Your task to perform on an android device: turn off priority inbox in the gmail app Image 0: 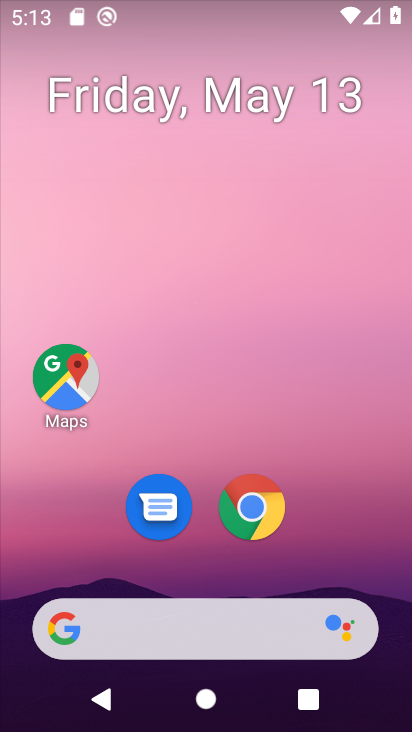
Step 0: press home button
Your task to perform on an android device: turn off priority inbox in the gmail app Image 1: 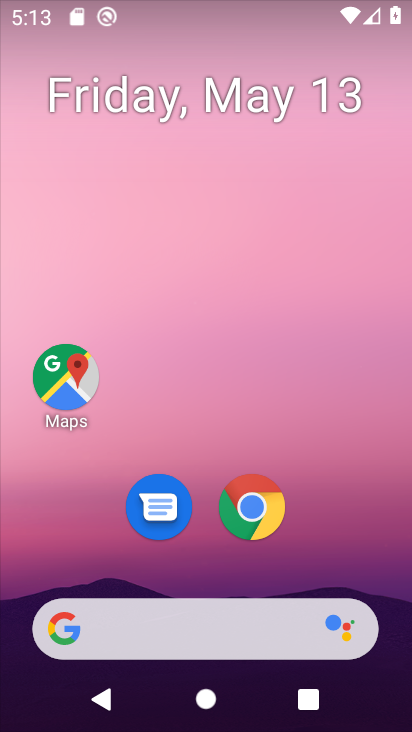
Step 1: drag from (326, 482) to (242, 61)
Your task to perform on an android device: turn off priority inbox in the gmail app Image 2: 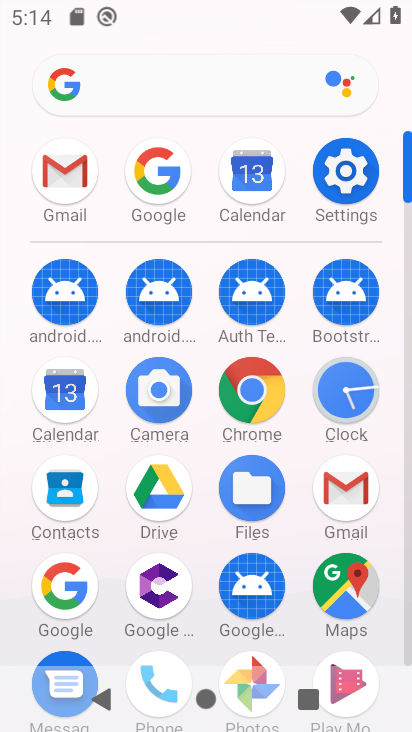
Step 2: click (337, 482)
Your task to perform on an android device: turn off priority inbox in the gmail app Image 3: 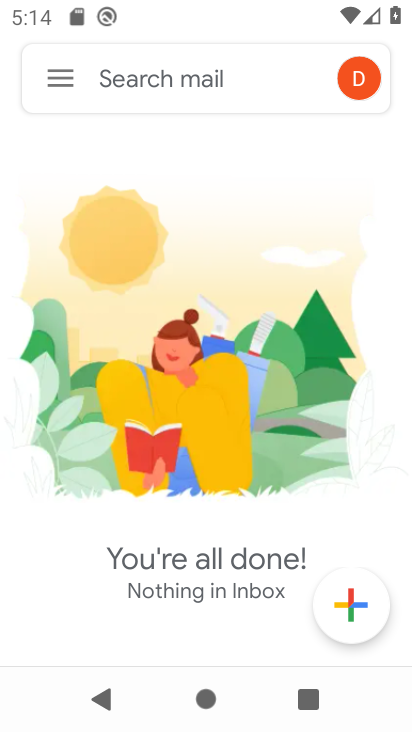
Step 3: click (58, 75)
Your task to perform on an android device: turn off priority inbox in the gmail app Image 4: 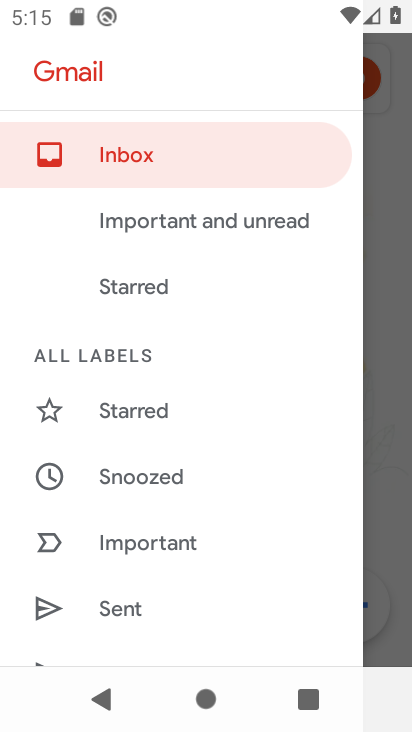
Step 4: drag from (194, 564) to (146, 88)
Your task to perform on an android device: turn off priority inbox in the gmail app Image 5: 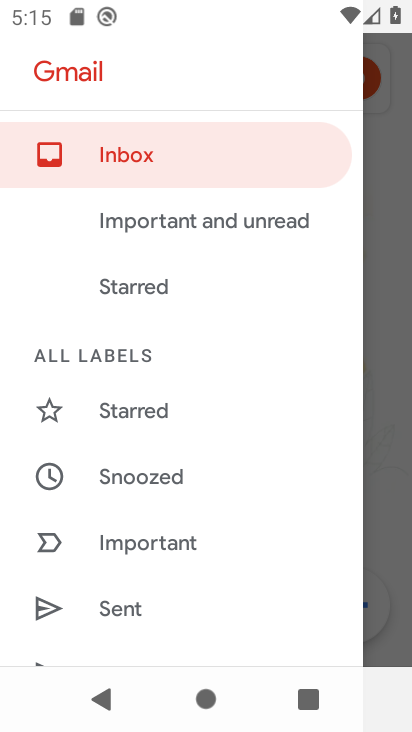
Step 5: drag from (179, 566) to (209, 148)
Your task to perform on an android device: turn off priority inbox in the gmail app Image 6: 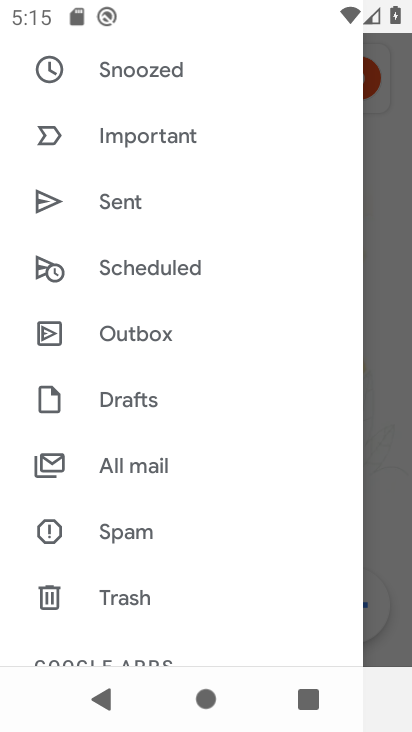
Step 6: drag from (190, 478) to (194, 191)
Your task to perform on an android device: turn off priority inbox in the gmail app Image 7: 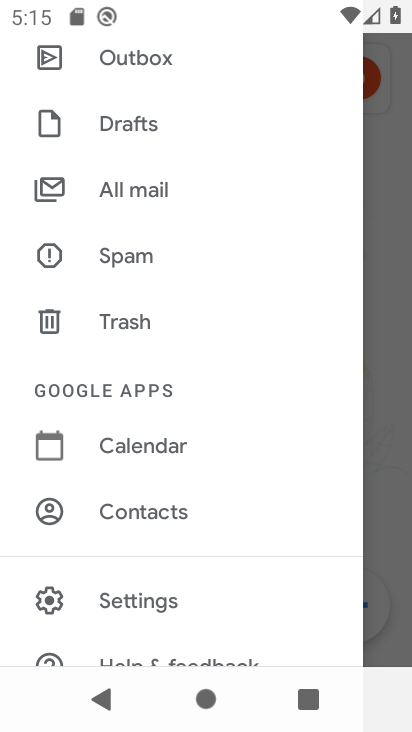
Step 7: click (182, 609)
Your task to perform on an android device: turn off priority inbox in the gmail app Image 8: 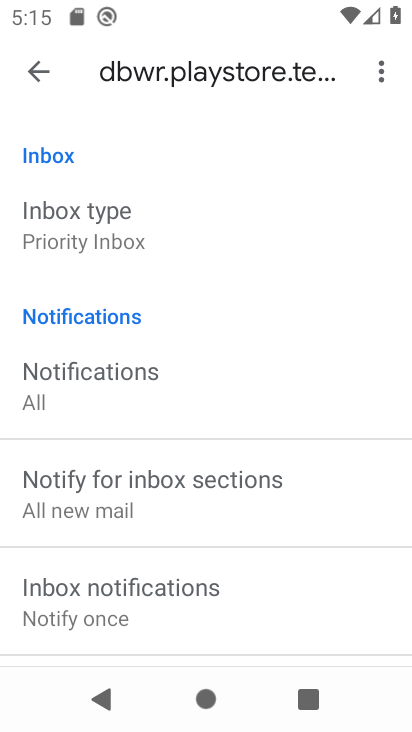
Step 8: drag from (197, 594) to (176, 161)
Your task to perform on an android device: turn off priority inbox in the gmail app Image 9: 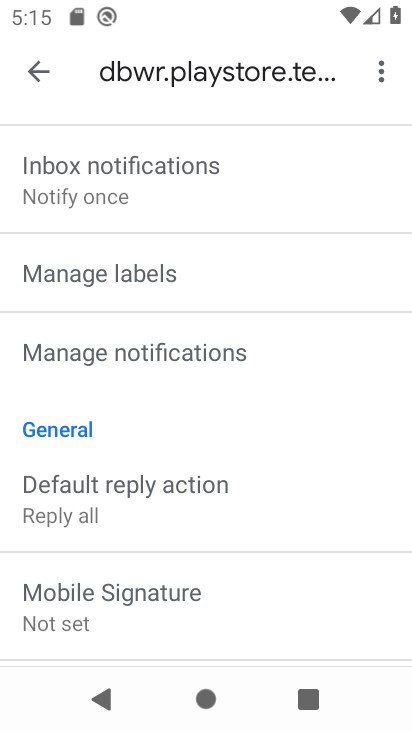
Step 9: drag from (169, 557) to (162, 116)
Your task to perform on an android device: turn off priority inbox in the gmail app Image 10: 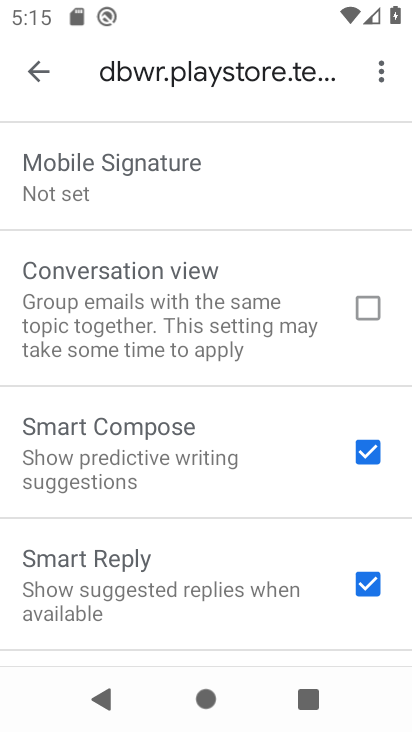
Step 10: drag from (180, 594) to (164, 177)
Your task to perform on an android device: turn off priority inbox in the gmail app Image 11: 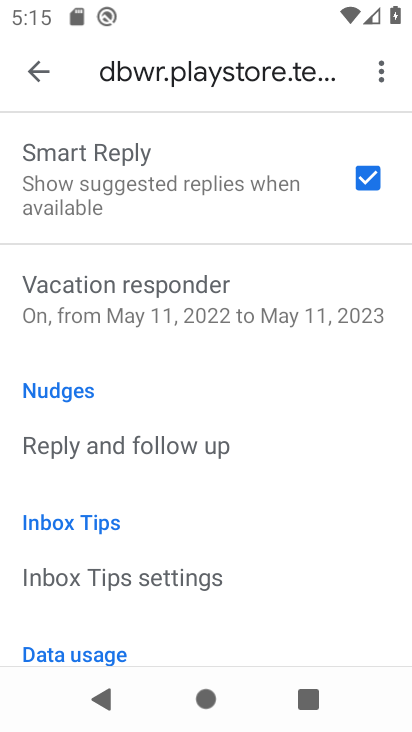
Step 11: drag from (184, 208) to (168, 703)
Your task to perform on an android device: turn off priority inbox in the gmail app Image 12: 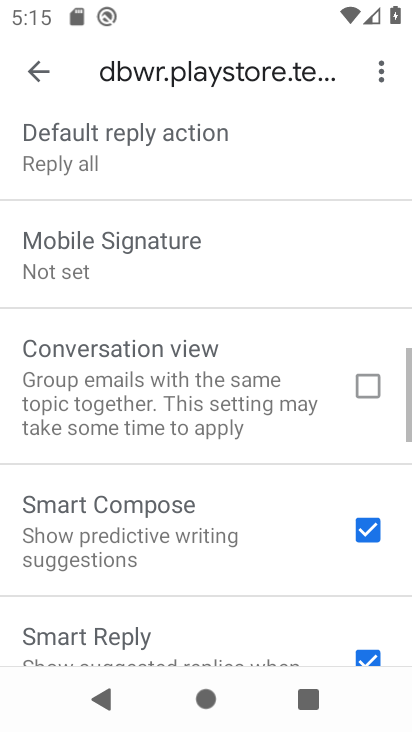
Step 12: drag from (197, 255) to (199, 701)
Your task to perform on an android device: turn off priority inbox in the gmail app Image 13: 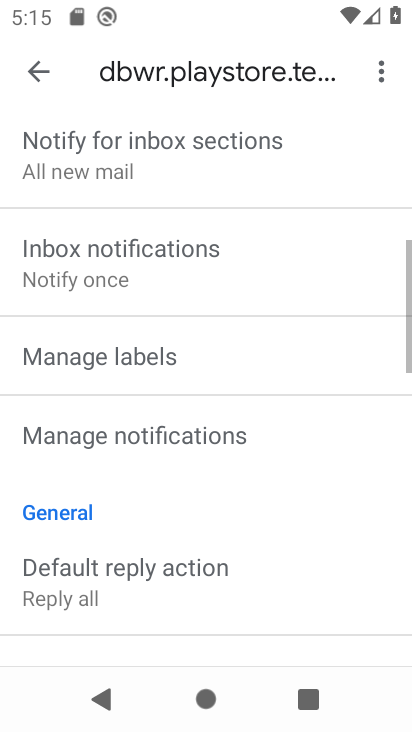
Step 13: drag from (165, 259) to (154, 548)
Your task to perform on an android device: turn off priority inbox in the gmail app Image 14: 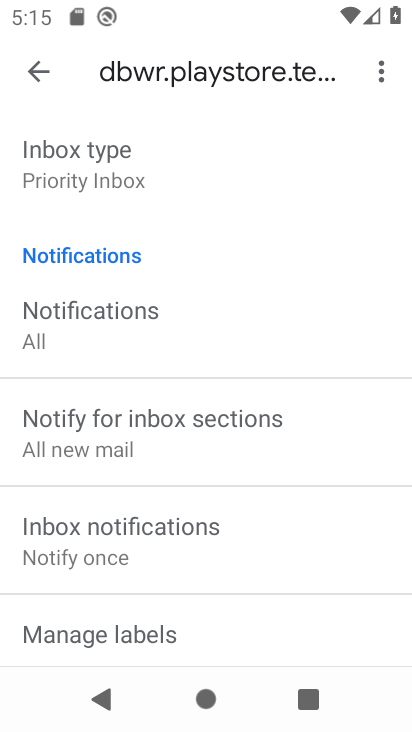
Step 14: click (117, 164)
Your task to perform on an android device: turn off priority inbox in the gmail app Image 15: 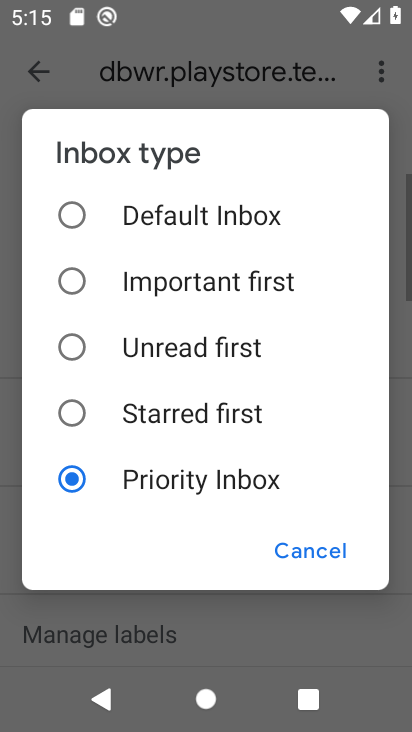
Step 15: click (212, 210)
Your task to perform on an android device: turn off priority inbox in the gmail app Image 16: 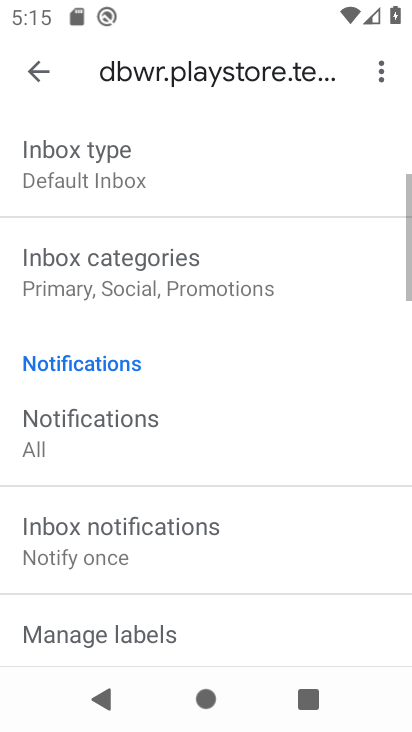
Step 16: task complete